Your task to perform on an android device: Open maps Image 0: 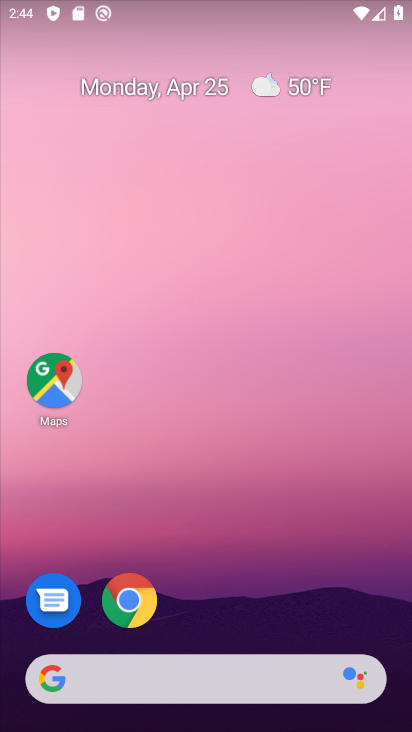
Step 0: drag from (366, 574) to (371, 154)
Your task to perform on an android device: Open maps Image 1: 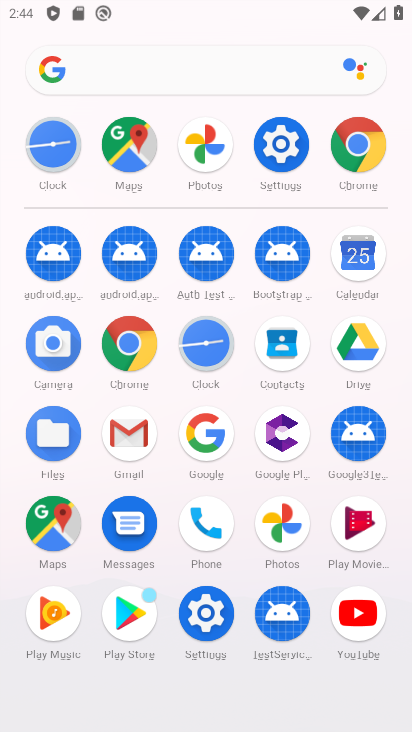
Step 1: click (131, 146)
Your task to perform on an android device: Open maps Image 2: 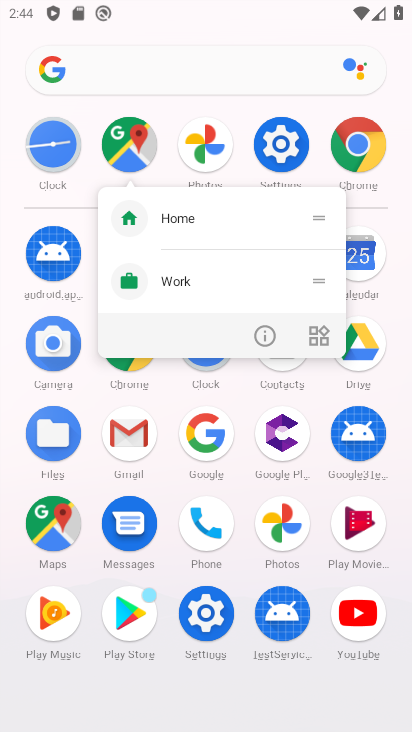
Step 2: click (131, 144)
Your task to perform on an android device: Open maps Image 3: 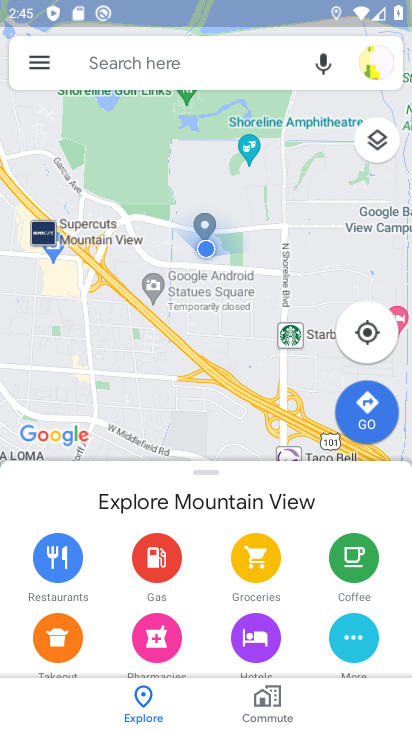
Step 3: click (128, 69)
Your task to perform on an android device: Open maps Image 4: 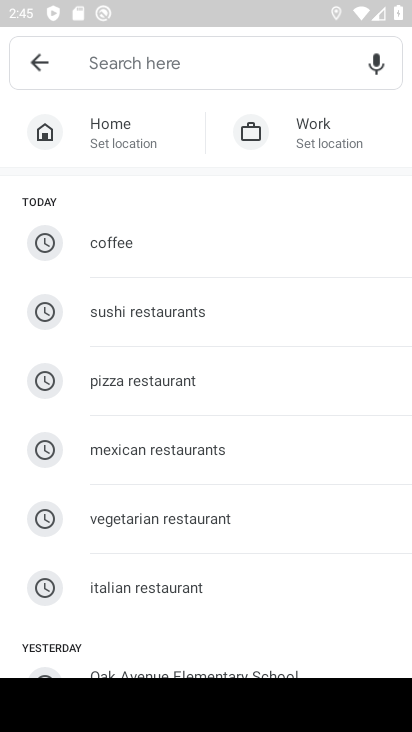
Step 4: click (5, 37)
Your task to perform on an android device: Open maps Image 5: 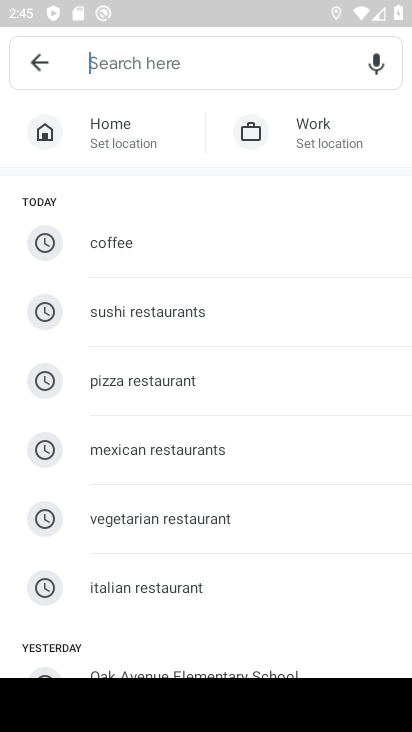
Step 5: click (35, 72)
Your task to perform on an android device: Open maps Image 6: 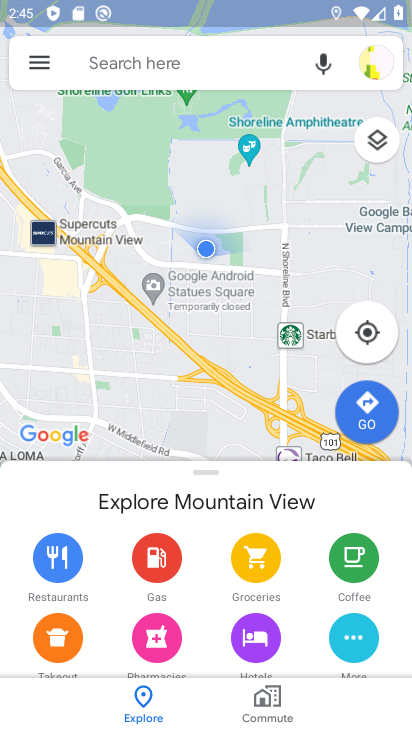
Step 6: task complete